Your task to perform on an android device: Go to sound settings Image 0: 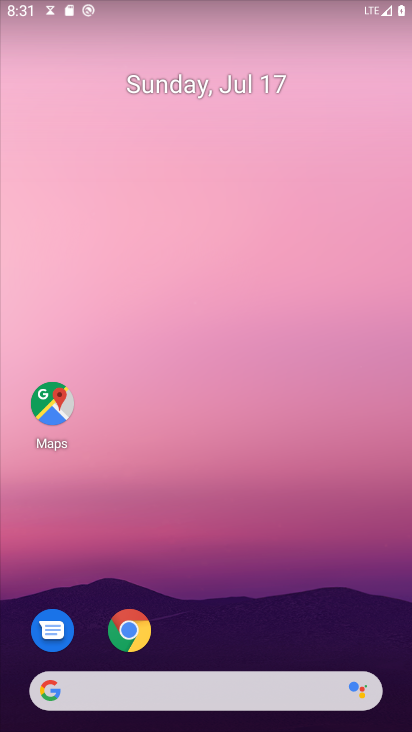
Step 0: drag from (207, 630) to (158, 16)
Your task to perform on an android device: Go to sound settings Image 1: 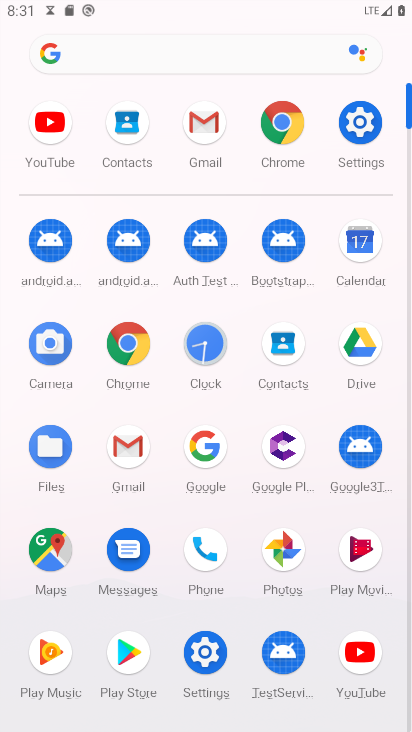
Step 1: click (213, 650)
Your task to perform on an android device: Go to sound settings Image 2: 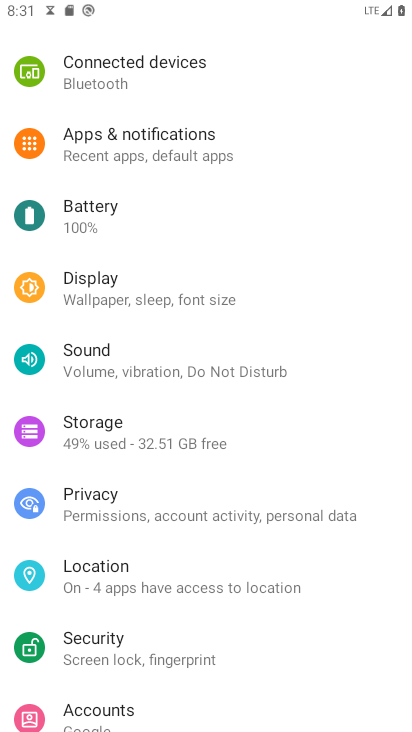
Step 2: click (150, 367)
Your task to perform on an android device: Go to sound settings Image 3: 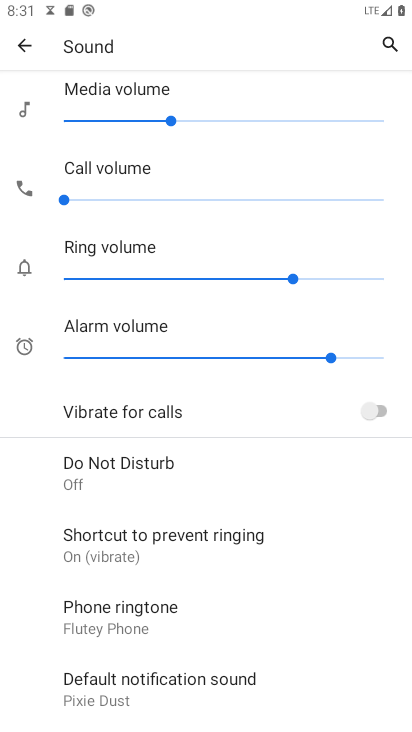
Step 3: task complete